Your task to perform on an android device: Open Maps and search for coffee Image 0: 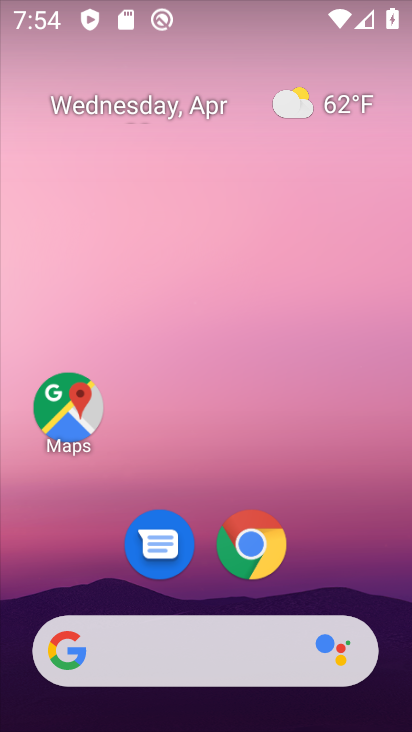
Step 0: click (77, 402)
Your task to perform on an android device: Open Maps and search for coffee Image 1: 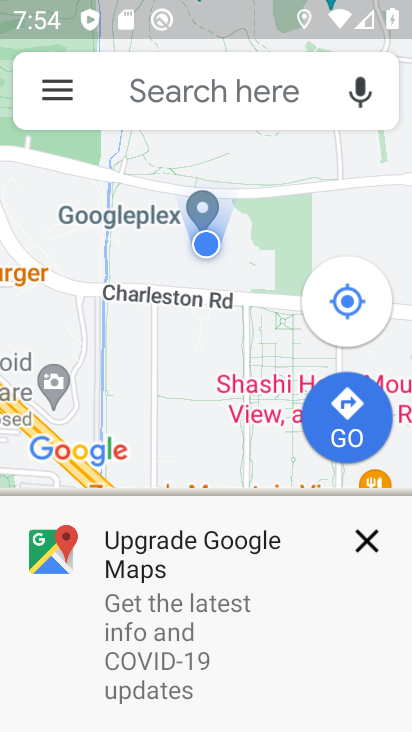
Step 1: click (237, 88)
Your task to perform on an android device: Open Maps and search for coffee Image 2: 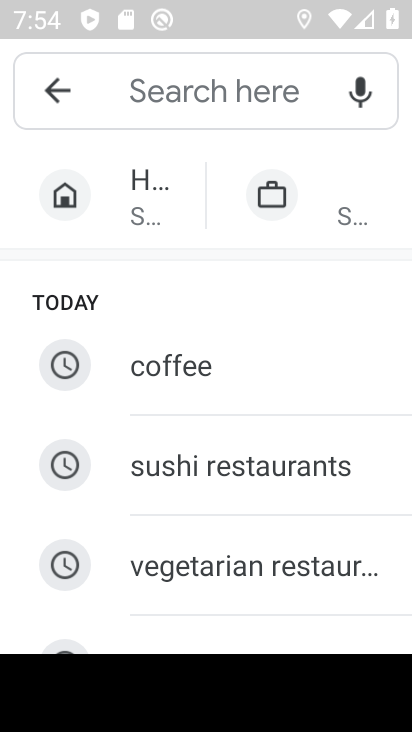
Step 2: click (166, 363)
Your task to perform on an android device: Open Maps and search for coffee Image 3: 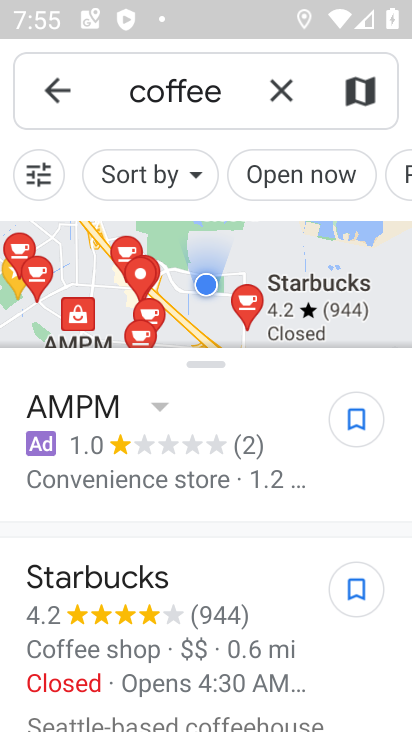
Step 3: task complete